Your task to perform on an android device: Open settings Image 0: 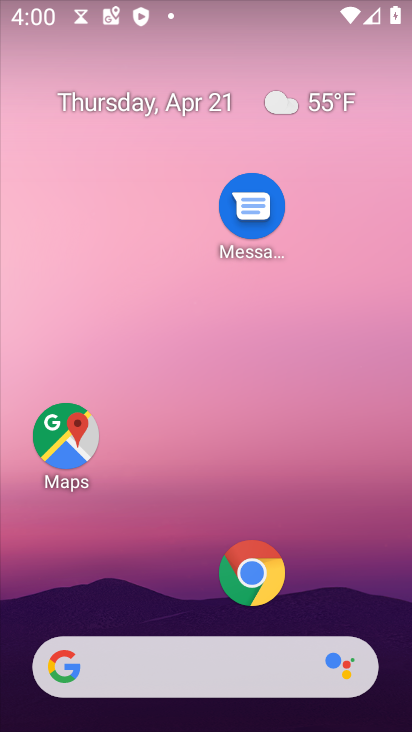
Step 0: drag from (216, 708) to (250, 160)
Your task to perform on an android device: Open settings Image 1: 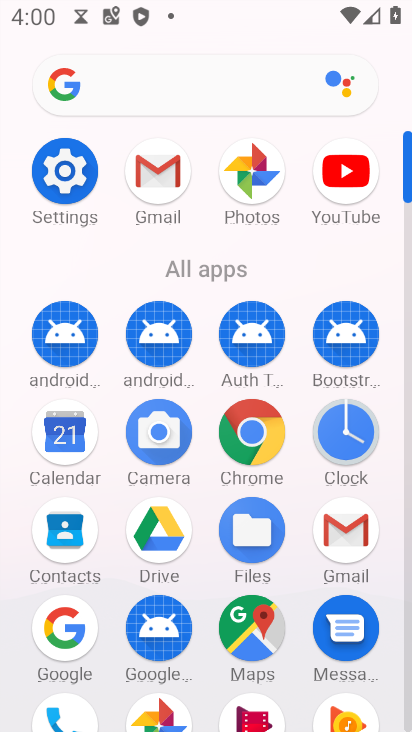
Step 1: click (70, 187)
Your task to perform on an android device: Open settings Image 2: 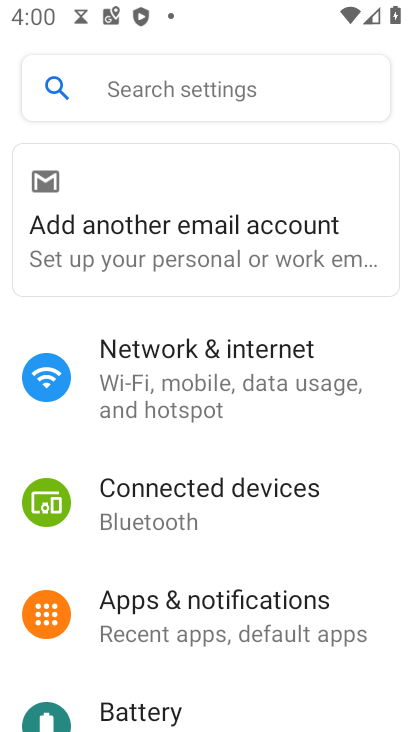
Step 2: task complete